Your task to perform on an android device: turn on javascript in the chrome app Image 0: 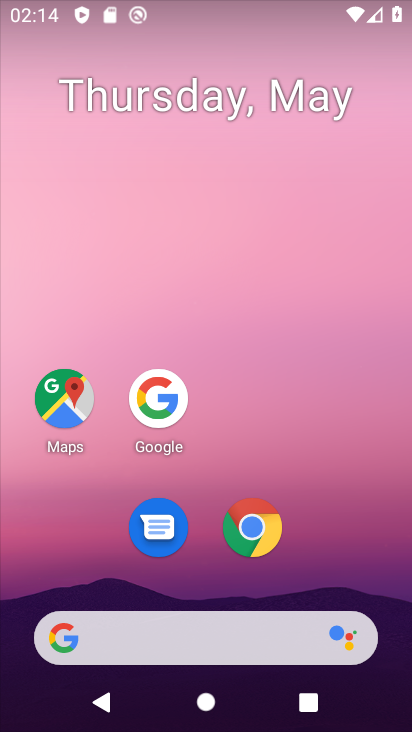
Step 0: drag from (186, 593) to (199, 136)
Your task to perform on an android device: turn on javascript in the chrome app Image 1: 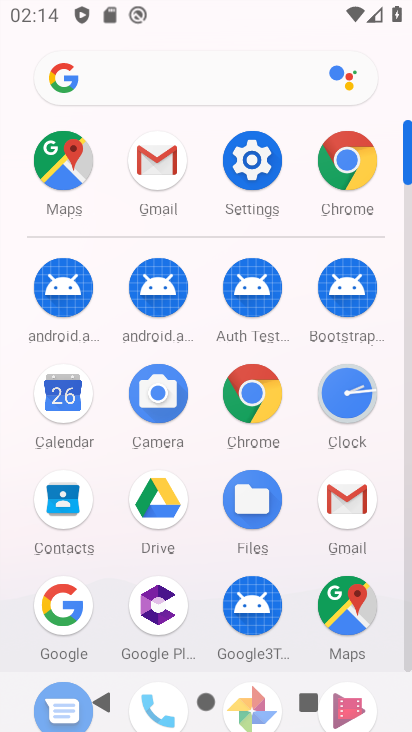
Step 1: click (246, 410)
Your task to perform on an android device: turn on javascript in the chrome app Image 2: 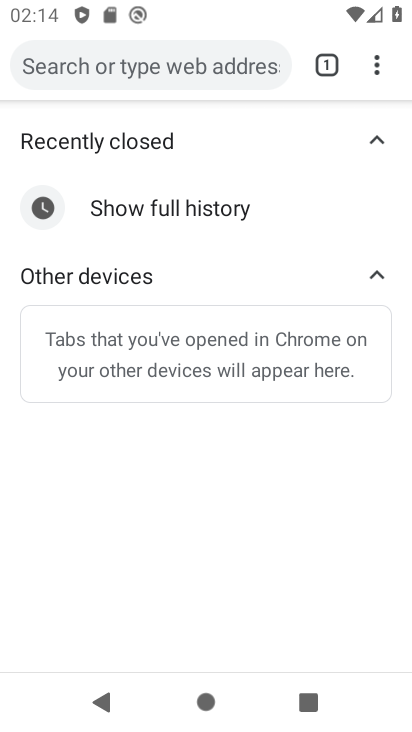
Step 2: click (377, 51)
Your task to perform on an android device: turn on javascript in the chrome app Image 3: 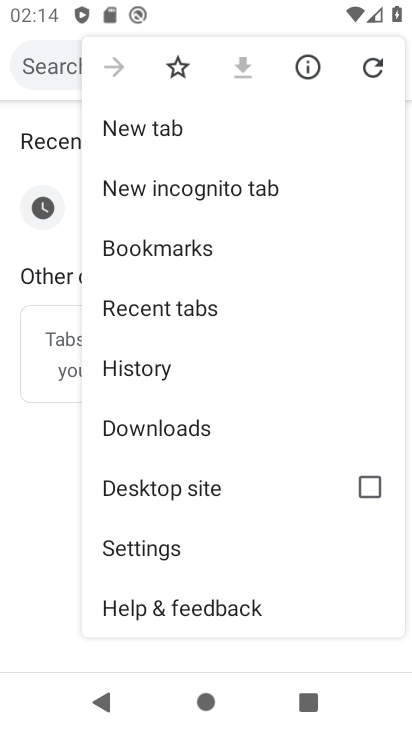
Step 3: click (165, 548)
Your task to perform on an android device: turn on javascript in the chrome app Image 4: 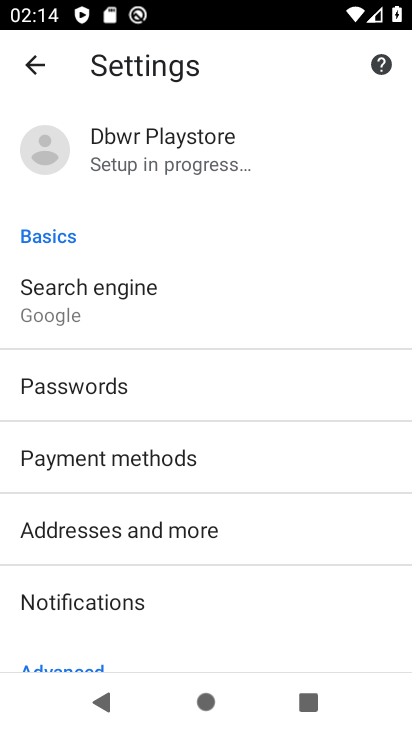
Step 4: drag from (120, 602) to (215, 126)
Your task to perform on an android device: turn on javascript in the chrome app Image 5: 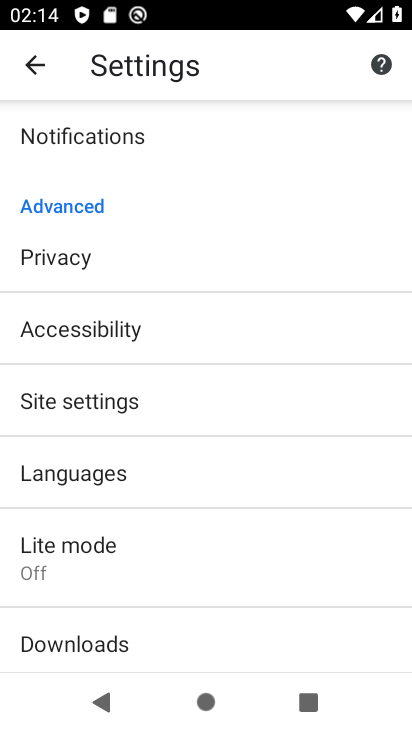
Step 5: drag from (137, 598) to (250, 85)
Your task to perform on an android device: turn on javascript in the chrome app Image 6: 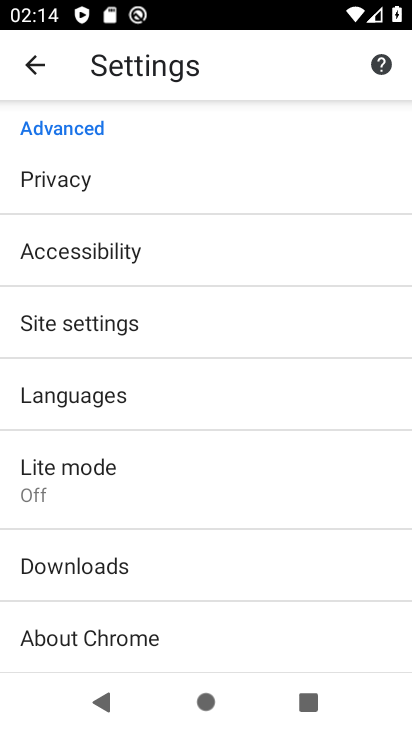
Step 6: click (131, 337)
Your task to perform on an android device: turn on javascript in the chrome app Image 7: 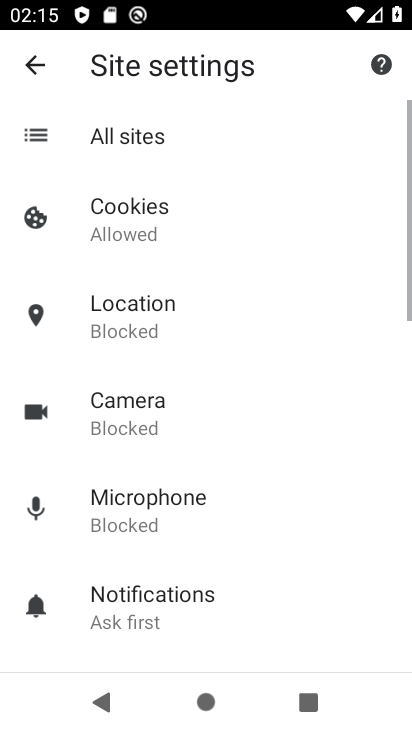
Step 7: drag from (214, 488) to (290, 115)
Your task to perform on an android device: turn on javascript in the chrome app Image 8: 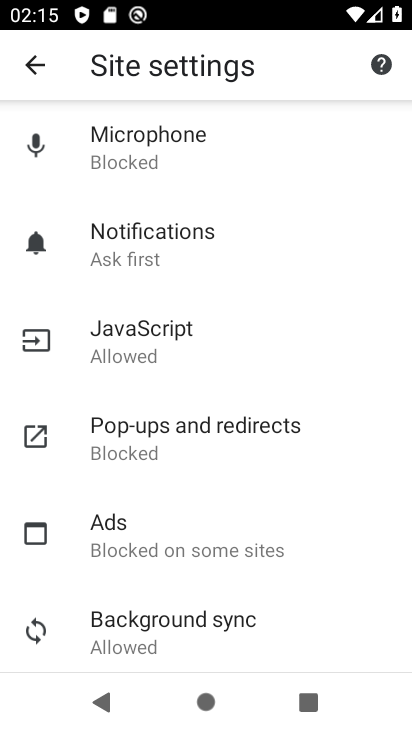
Step 8: click (177, 332)
Your task to perform on an android device: turn on javascript in the chrome app Image 9: 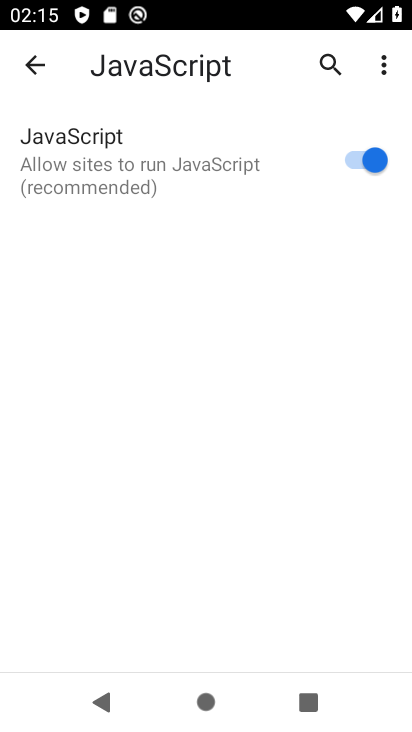
Step 9: task complete